Your task to perform on an android device: change text size in settings app Image 0: 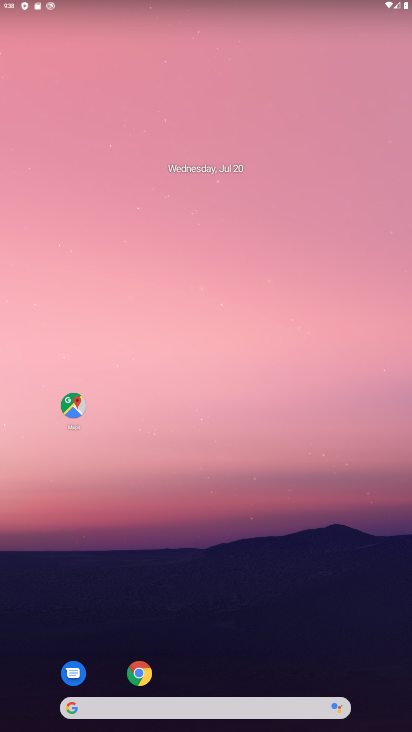
Step 0: drag from (246, 675) to (301, 255)
Your task to perform on an android device: change text size in settings app Image 1: 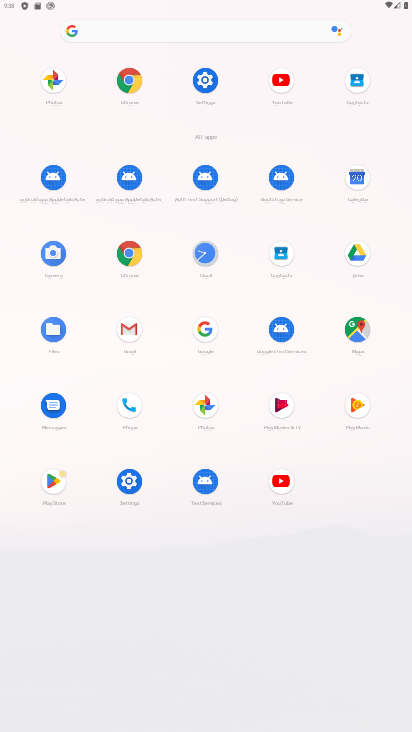
Step 1: click (204, 87)
Your task to perform on an android device: change text size in settings app Image 2: 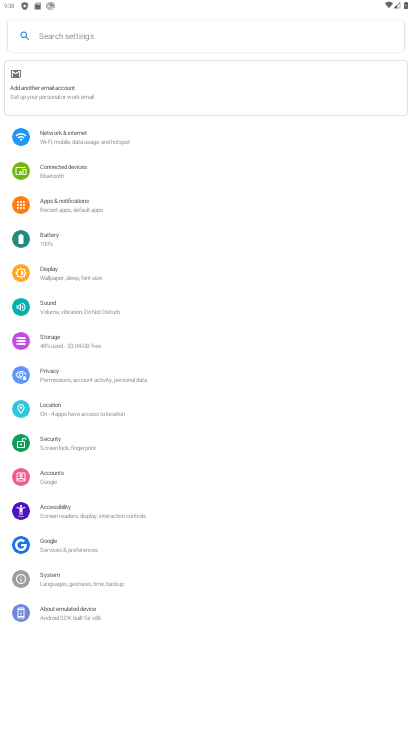
Step 2: click (73, 277)
Your task to perform on an android device: change text size in settings app Image 3: 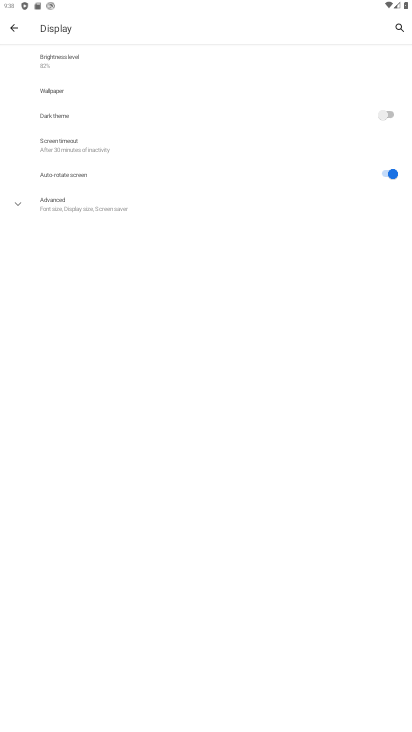
Step 3: click (99, 209)
Your task to perform on an android device: change text size in settings app Image 4: 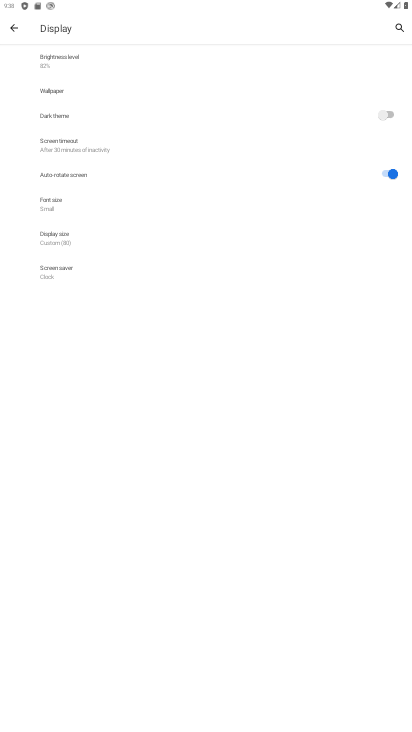
Step 4: click (86, 205)
Your task to perform on an android device: change text size in settings app Image 5: 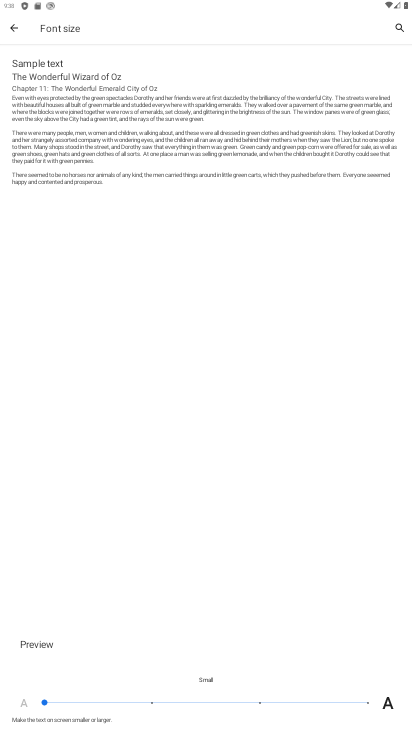
Step 5: click (236, 705)
Your task to perform on an android device: change text size in settings app Image 6: 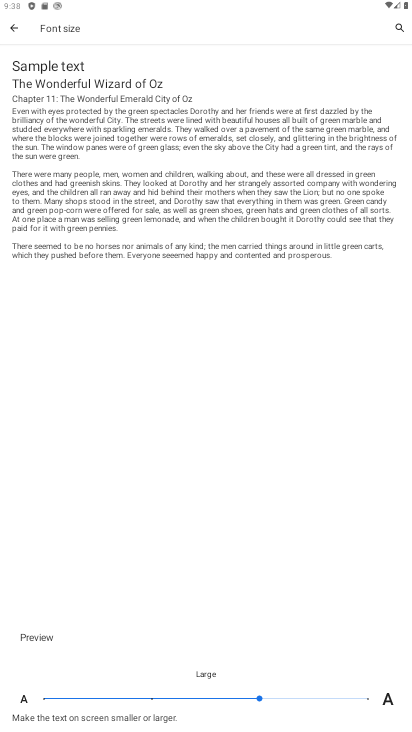
Step 6: task complete